Your task to perform on an android device: What's the weather? Image 0: 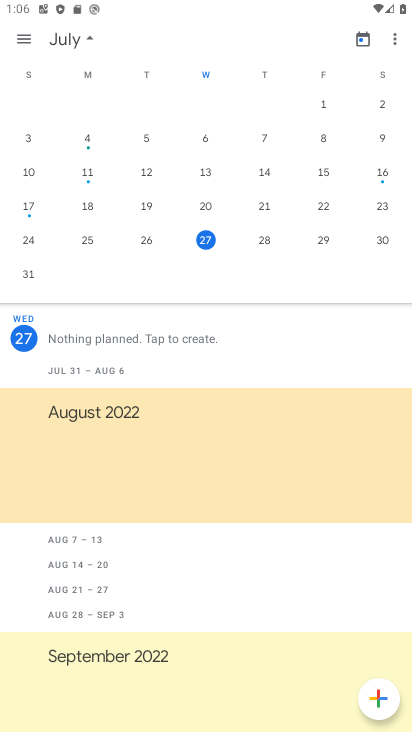
Step 0: press home button
Your task to perform on an android device: What's the weather? Image 1: 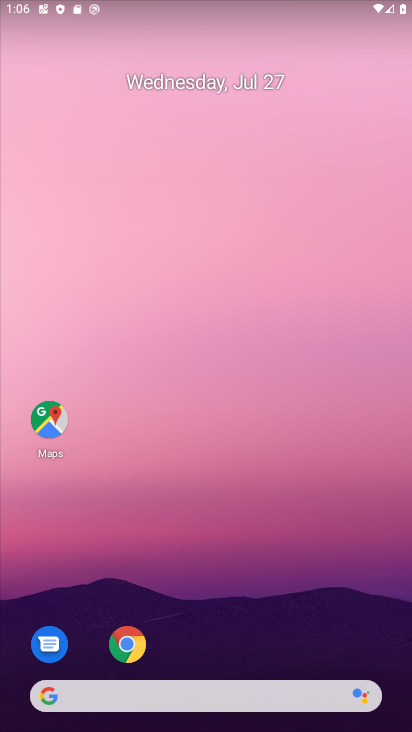
Step 1: click (251, 693)
Your task to perform on an android device: What's the weather? Image 2: 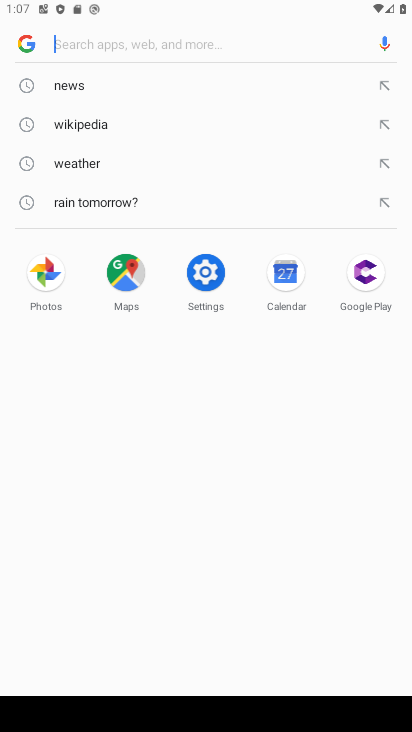
Step 2: type "what's the weather"
Your task to perform on an android device: What's the weather? Image 3: 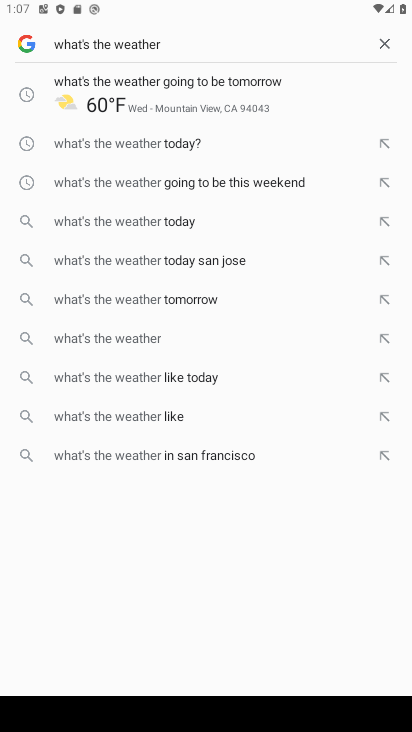
Step 3: click (139, 338)
Your task to perform on an android device: What's the weather? Image 4: 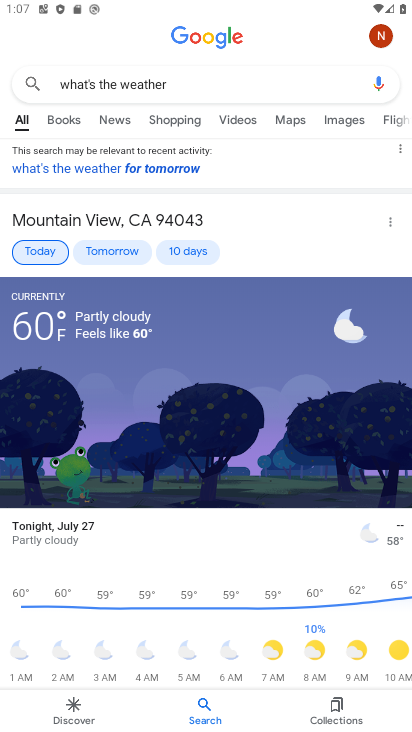
Step 4: task complete